Your task to perform on an android device: What's the weather? Image 0: 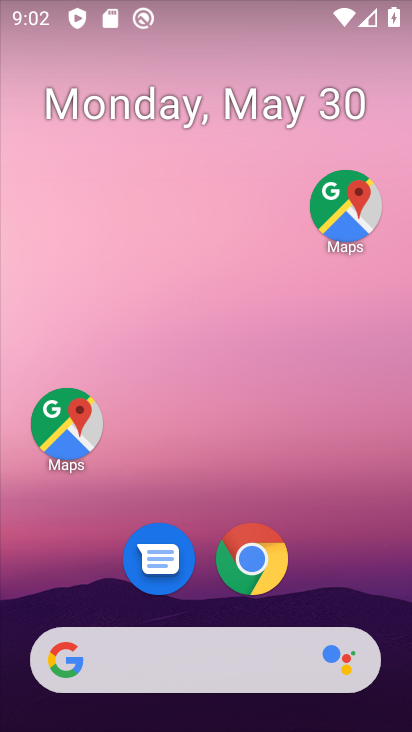
Step 0: drag from (342, 562) to (289, 86)
Your task to perform on an android device: What's the weather? Image 1: 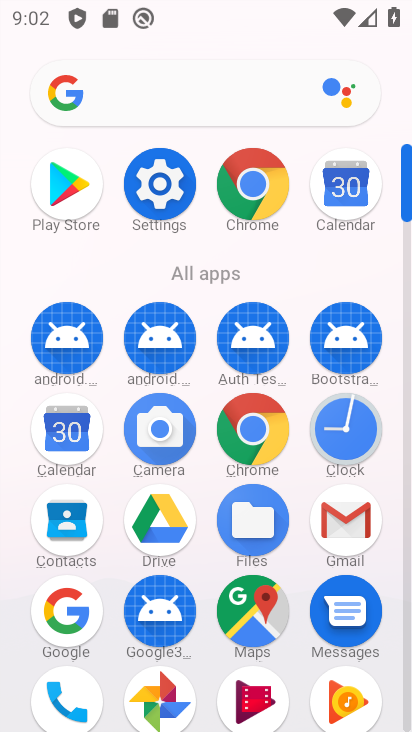
Step 1: click (256, 188)
Your task to perform on an android device: What's the weather? Image 2: 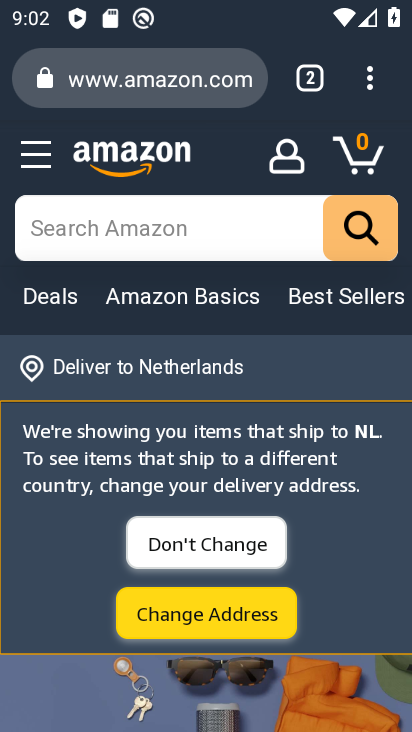
Step 2: click (181, 76)
Your task to perform on an android device: What's the weather? Image 3: 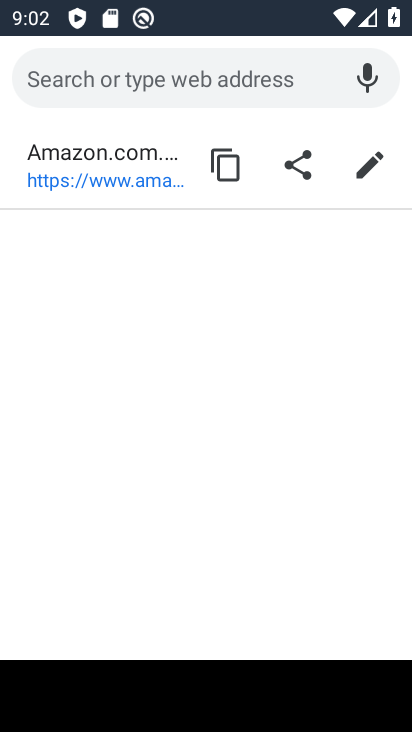
Step 3: type "weather"
Your task to perform on an android device: What's the weather? Image 4: 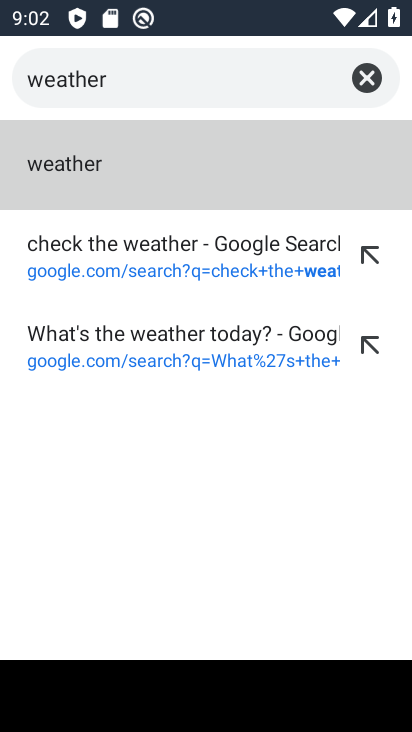
Step 4: click (76, 172)
Your task to perform on an android device: What's the weather? Image 5: 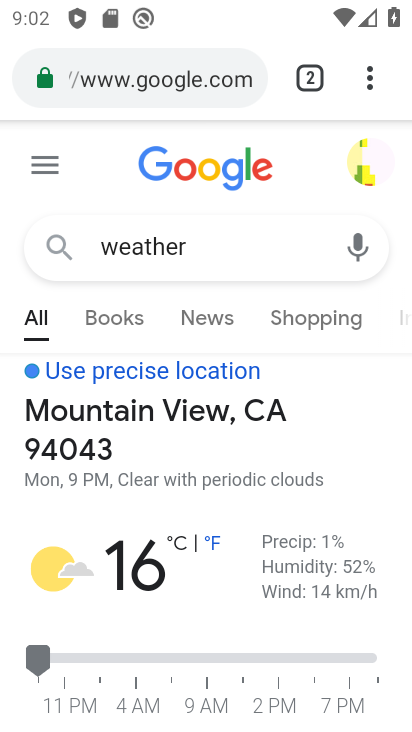
Step 5: task complete